Your task to perform on an android device: toggle notification dots Image 0: 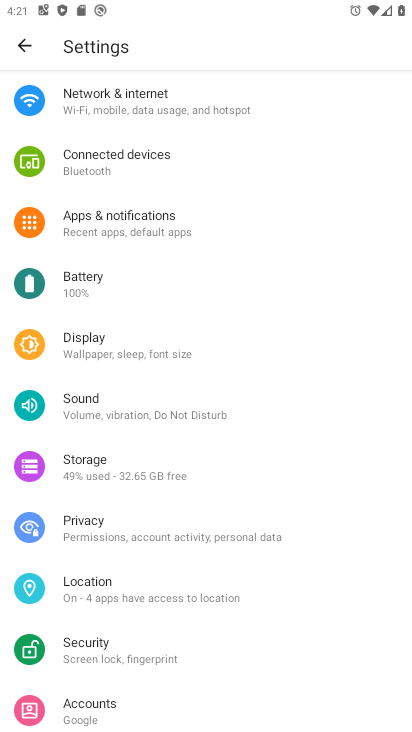
Step 0: click (152, 234)
Your task to perform on an android device: toggle notification dots Image 1: 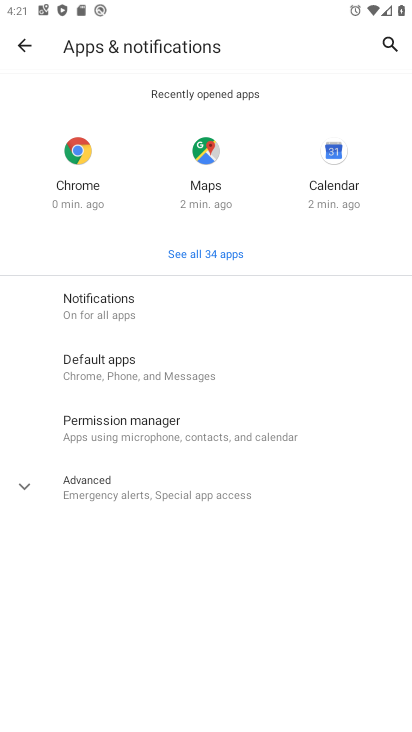
Step 1: click (118, 293)
Your task to perform on an android device: toggle notification dots Image 2: 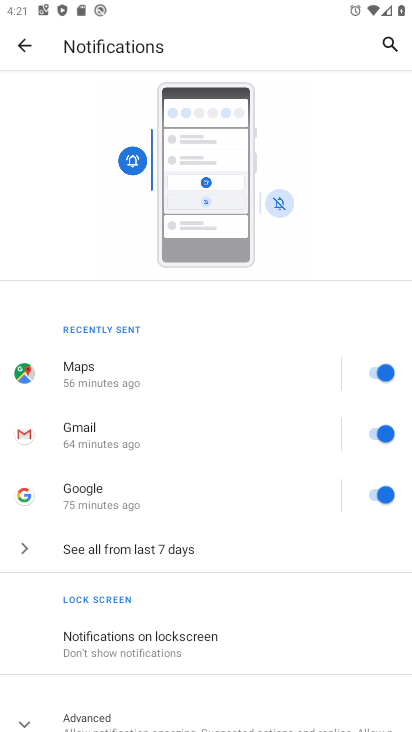
Step 2: drag from (150, 672) to (181, 538)
Your task to perform on an android device: toggle notification dots Image 3: 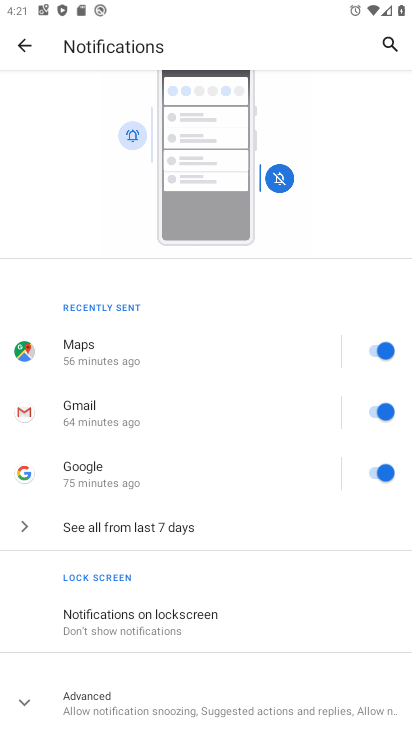
Step 3: click (142, 700)
Your task to perform on an android device: toggle notification dots Image 4: 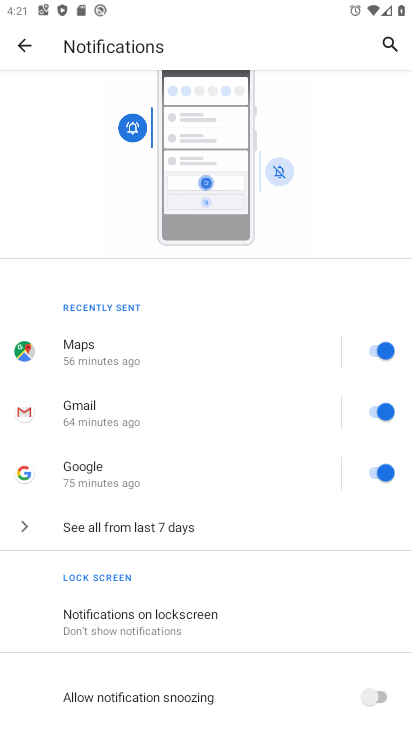
Step 4: drag from (162, 677) to (242, 496)
Your task to perform on an android device: toggle notification dots Image 5: 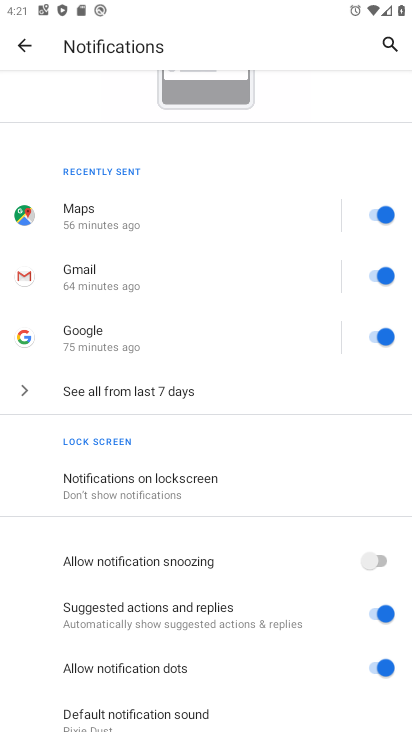
Step 5: click (368, 671)
Your task to perform on an android device: toggle notification dots Image 6: 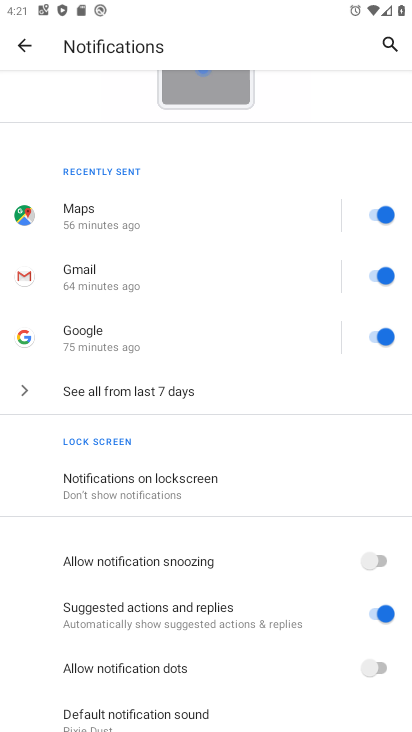
Step 6: task complete